Your task to perform on an android device: change timer sound Image 0: 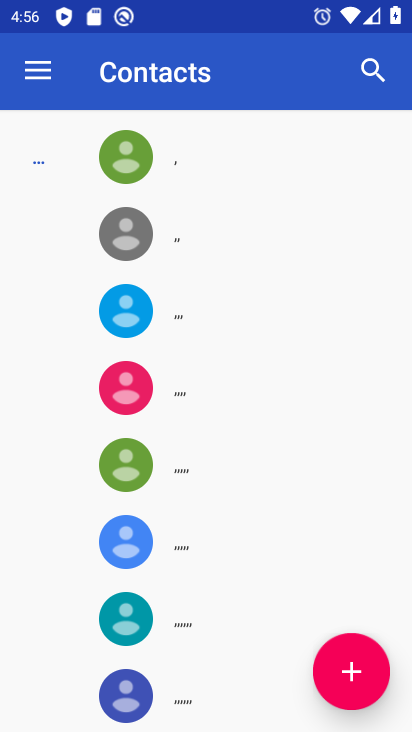
Step 0: press home button
Your task to perform on an android device: change timer sound Image 1: 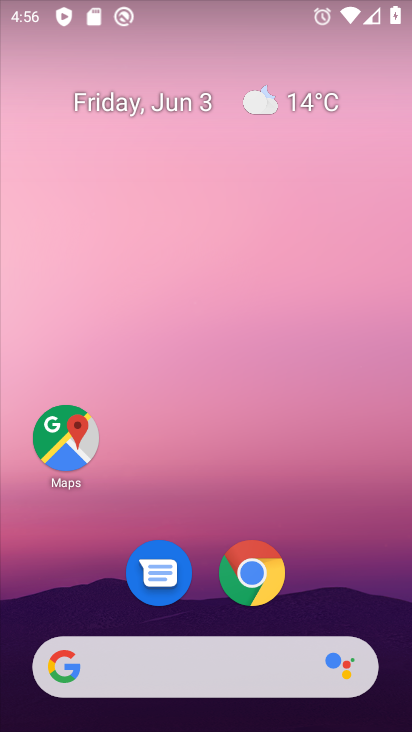
Step 1: drag from (322, 588) to (267, 128)
Your task to perform on an android device: change timer sound Image 2: 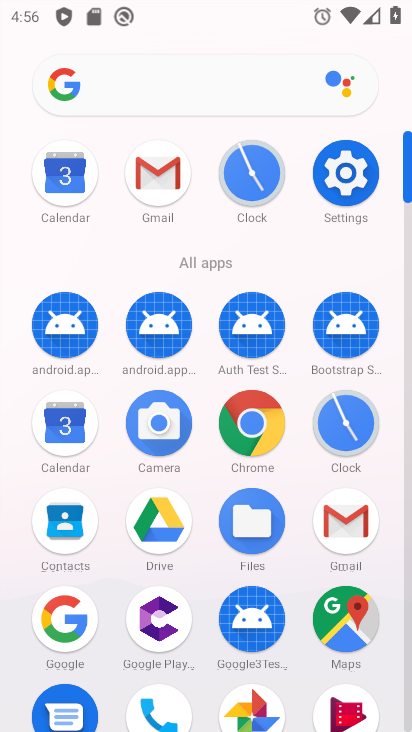
Step 2: click (349, 164)
Your task to perform on an android device: change timer sound Image 3: 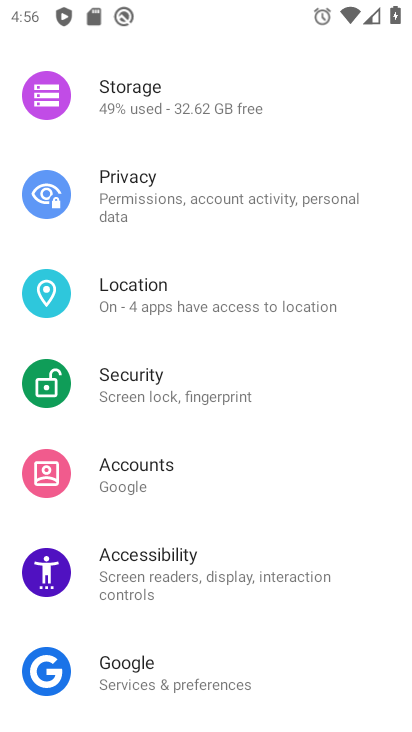
Step 3: press home button
Your task to perform on an android device: change timer sound Image 4: 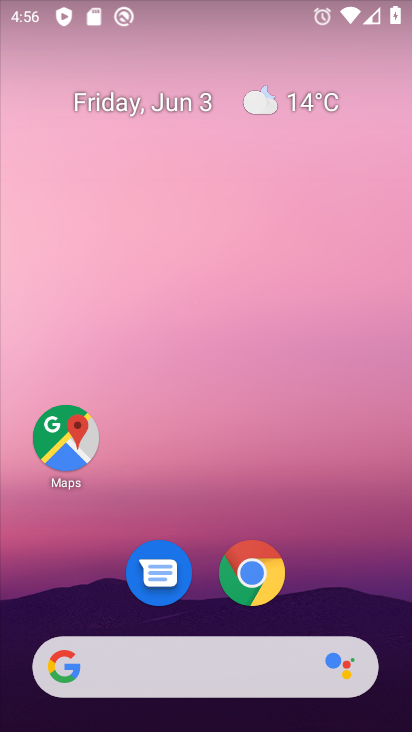
Step 4: drag from (334, 513) to (335, 112)
Your task to perform on an android device: change timer sound Image 5: 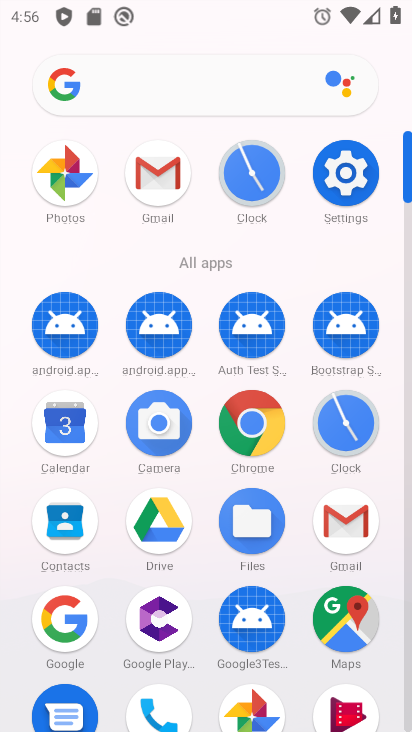
Step 5: click (339, 432)
Your task to perform on an android device: change timer sound Image 6: 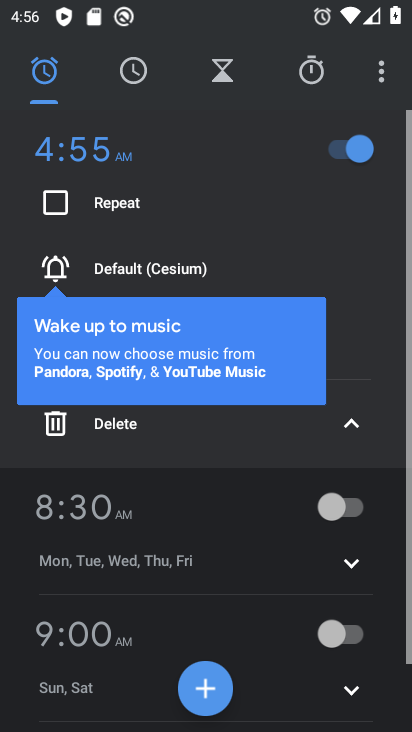
Step 6: click (387, 75)
Your task to perform on an android device: change timer sound Image 7: 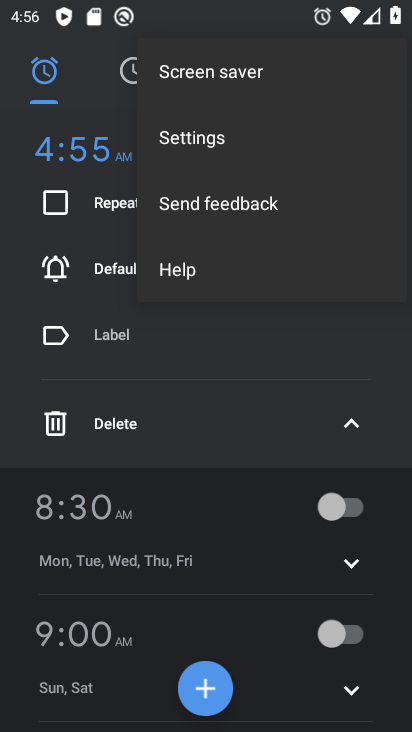
Step 7: click (186, 146)
Your task to perform on an android device: change timer sound Image 8: 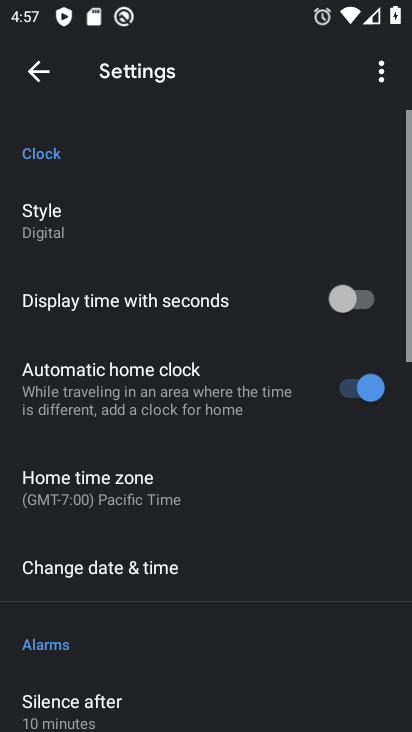
Step 8: drag from (205, 565) to (245, 111)
Your task to perform on an android device: change timer sound Image 9: 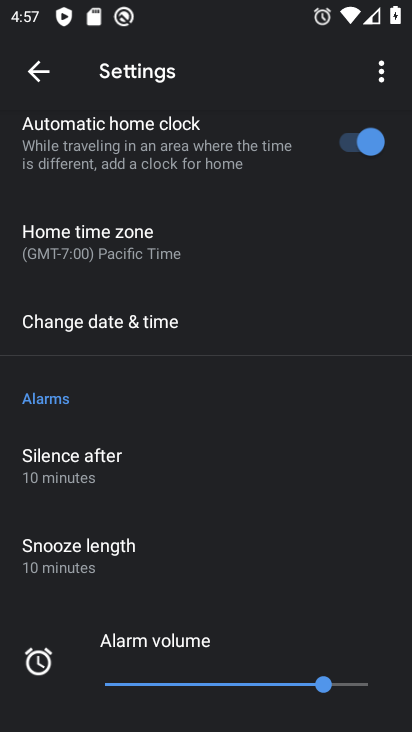
Step 9: drag from (220, 548) to (251, 140)
Your task to perform on an android device: change timer sound Image 10: 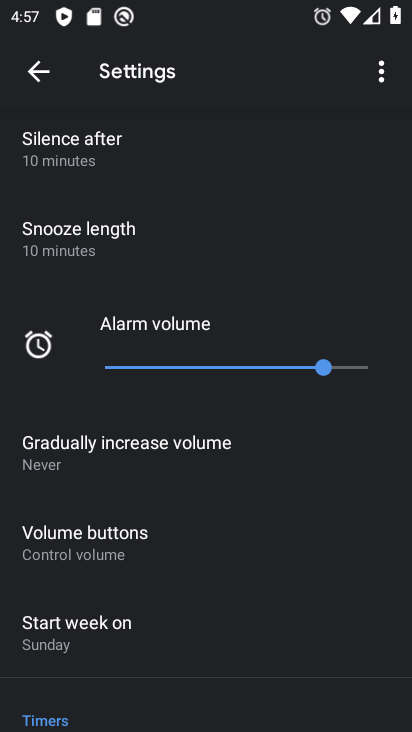
Step 10: drag from (175, 592) to (195, 152)
Your task to perform on an android device: change timer sound Image 11: 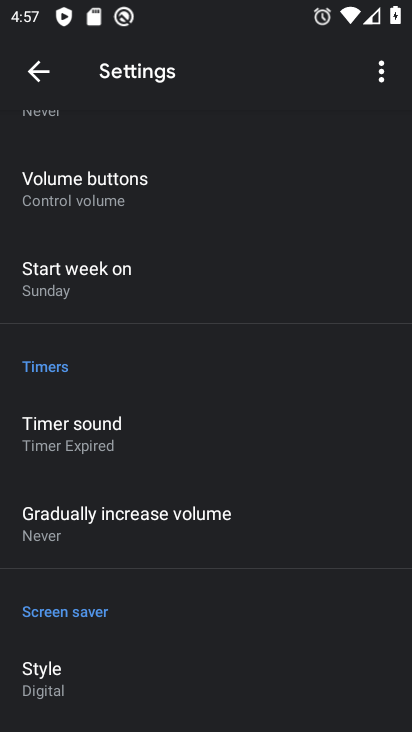
Step 11: click (113, 421)
Your task to perform on an android device: change timer sound Image 12: 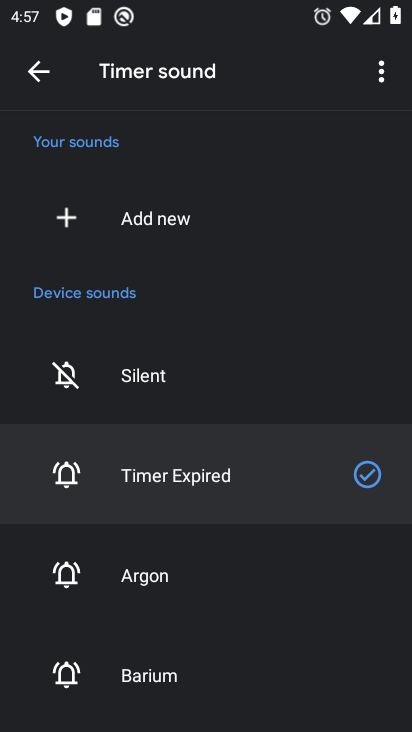
Step 12: click (176, 568)
Your task to perform on an android device: change timer sound Image 13: 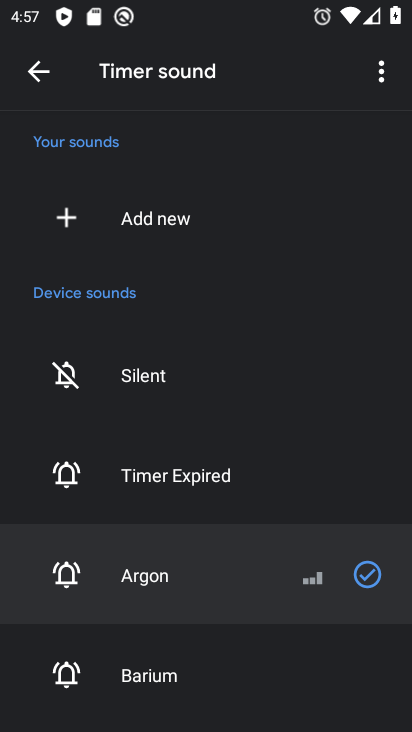
Step 13: task complete